Your task to perform on an android device: Go to Wikipedia Image 0: 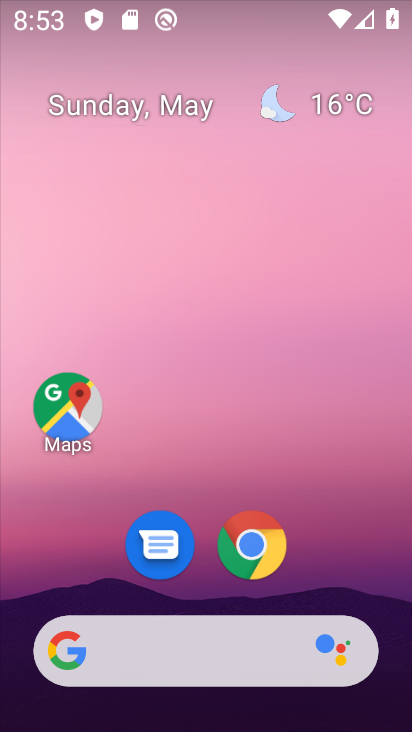
Step 0: click (263, 546)
Your task to perform on an android device: Go to Wikipedia Image 1: 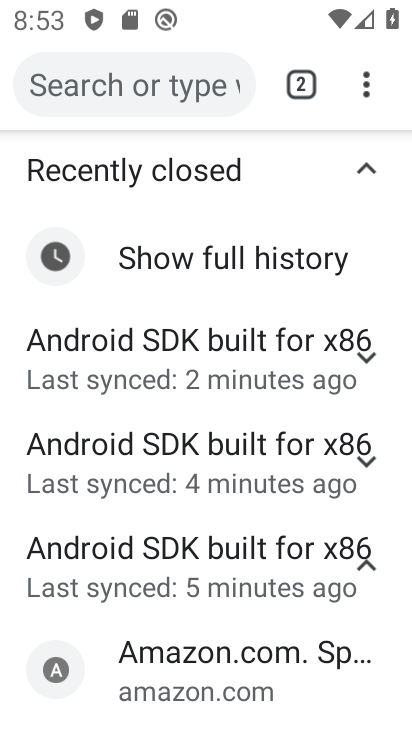
Step 1: drag from (364, 84) to (112, 178)
Your task to perform on an android device: Go to Wikipedia Image 2: 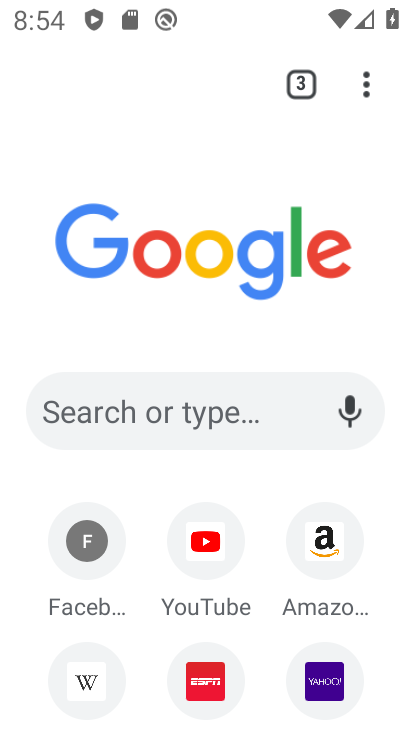
Step 2: click (80, 684)
Your task to perform on an android device: Go to Wikipedia Image 3: 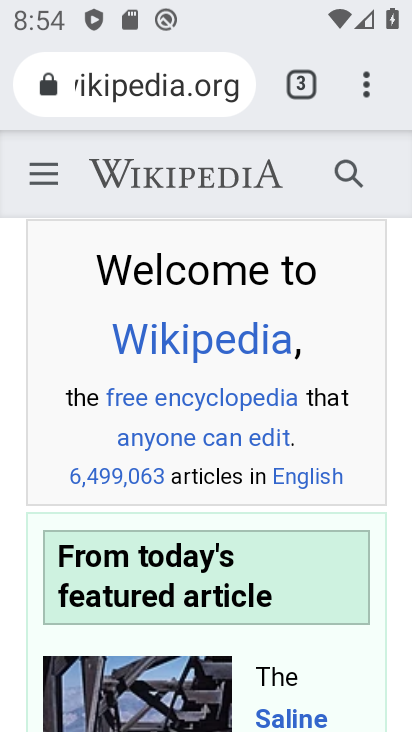
Step 3: task complete